Your task to perform on an android device: turn on improve location accuracy Image 0: 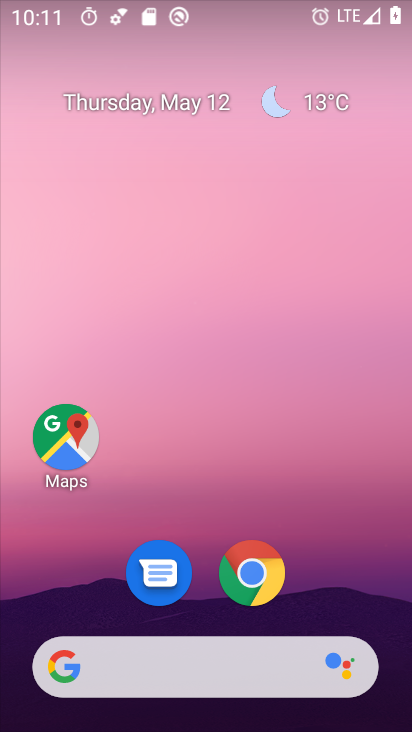
Step 0: drag from (402, 688) to (338, 281)
Your task to perform on an android device: turn on improve location accuracy Image 1: 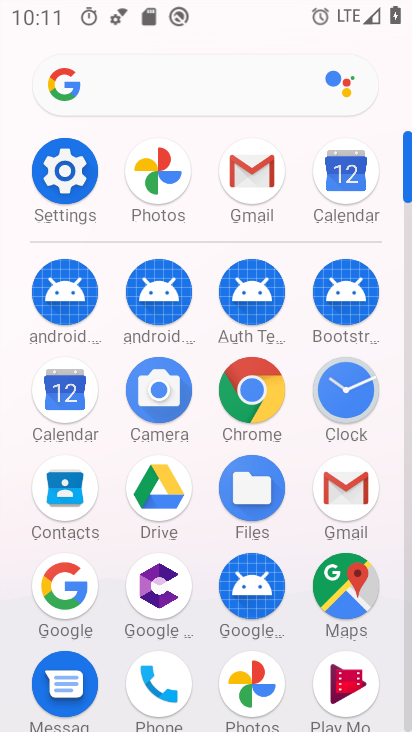
Step 1: click (65, 174)
Your task to perform on an android device: turn on improve location accuracy Image 2: 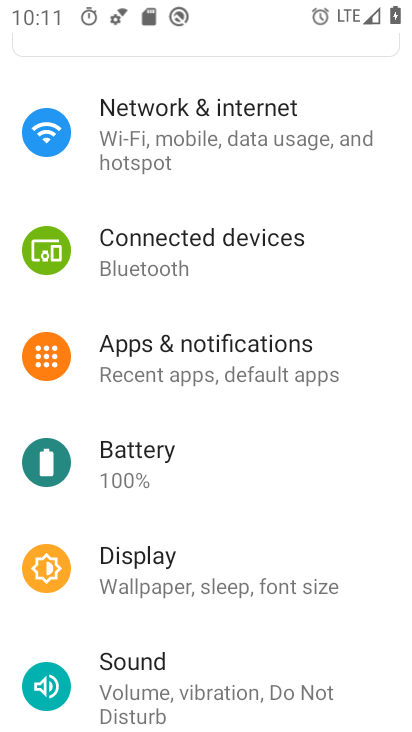
Step 2: drag from (389, 632) to (388, 303)
Your task to perform on an android device: turn on improve location accuracy Image 3: 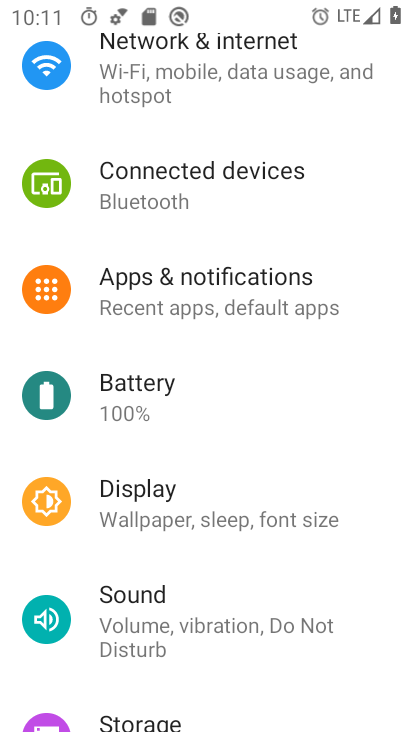
Step 3: drag from (386, 673) to (392, 304)
Your task to perform on an android device: turn on improve location accuracy Image 4: 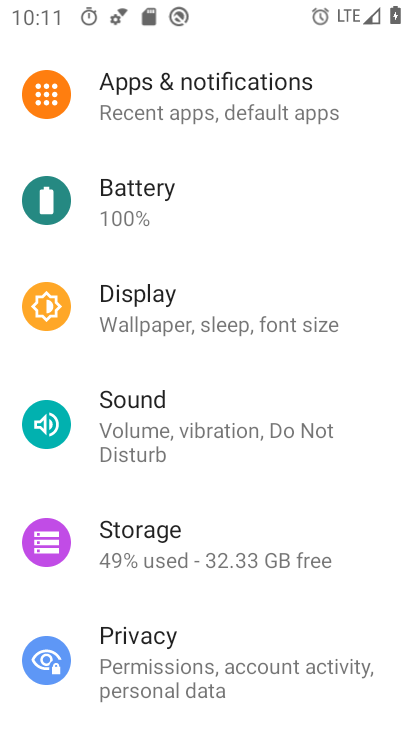
Step 4: drag from (382, 675) to (387, 280)
Your task to perform on an android device: turn on improve location accuracy Image 5: 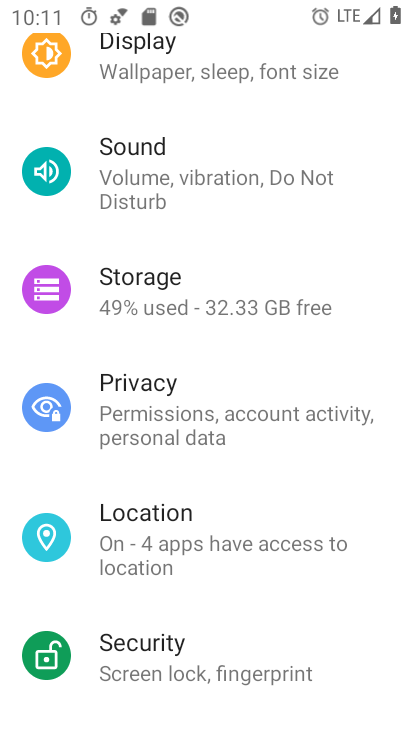
Step 5: click (130, 537)
Your task to perform on an android device: turn on improve location accuracy Image 6: 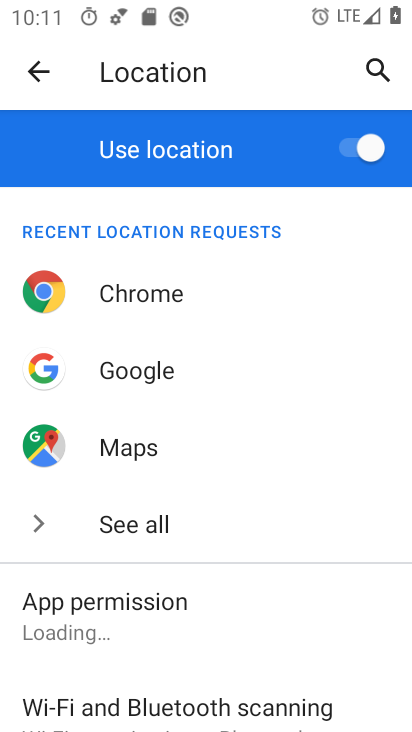
Step 6: drag from (359, 644) to (334, 341)
Your task to perform on an android device: turn on improve location accuracy Image 7: 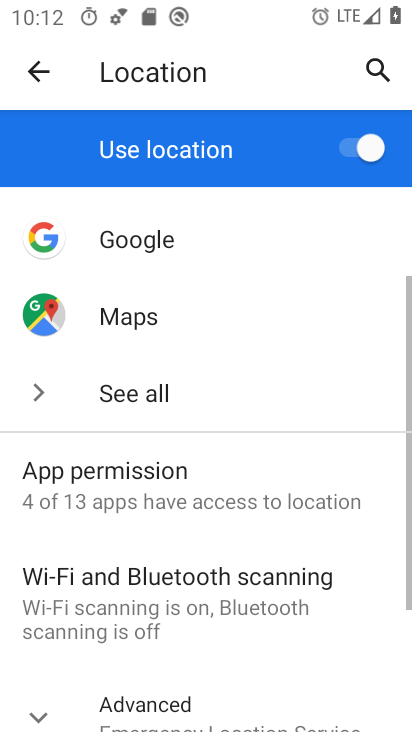
Step 7: drag from (351, 411) to (356, 338)
Your task to perform on an android device: turn on improve location accuracy Image 8: 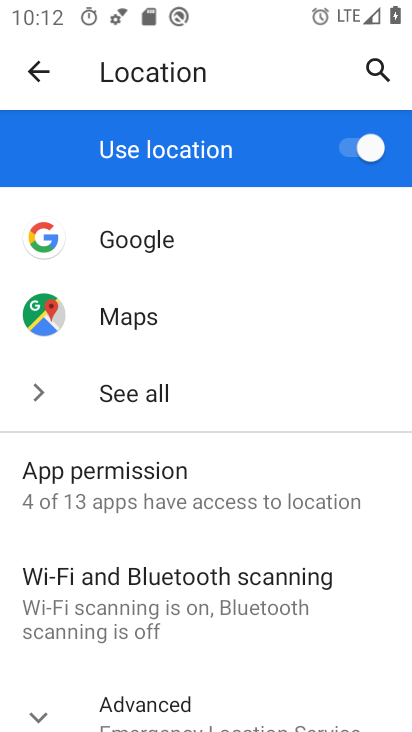
Step 8: drag from (366, 640) to (392, 311)
Your task to perform on an android device: turn on improve location accuracy Image 9: 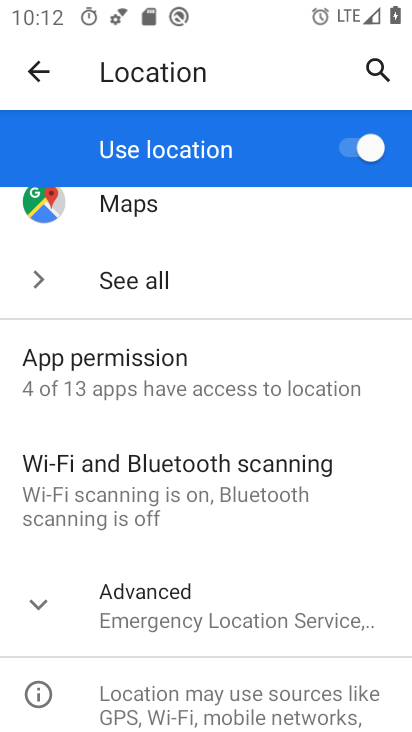
Step 9: click (45, 603)
Your task to perform on an android device: turn on improve location accuracy Image 10: 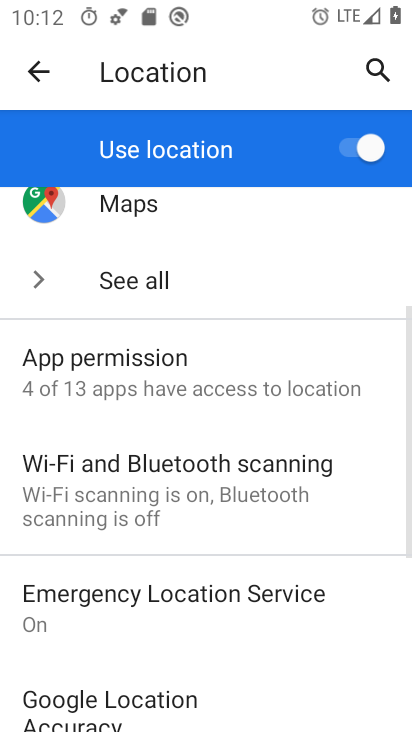
Step 10: task complete